Your task to perform on an android device: manage bookmarks in the chrome app Image 0: 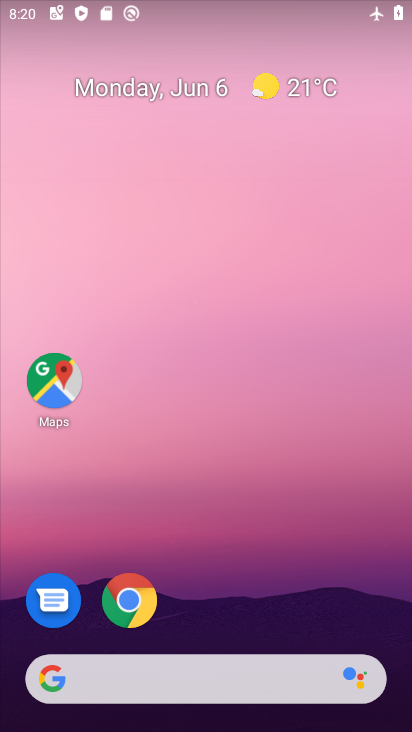
Step 0: drag from (378, 626) to (334, 133)
Your task to perform on an android device: manage bookmarks in the chrome app Image 1: 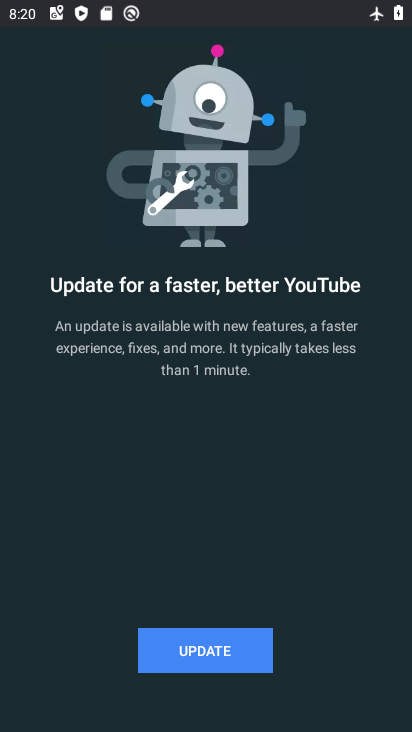
Step 1: press home button
Your task to perform on an android device: manage bookmarks in the chrome app Image 2: 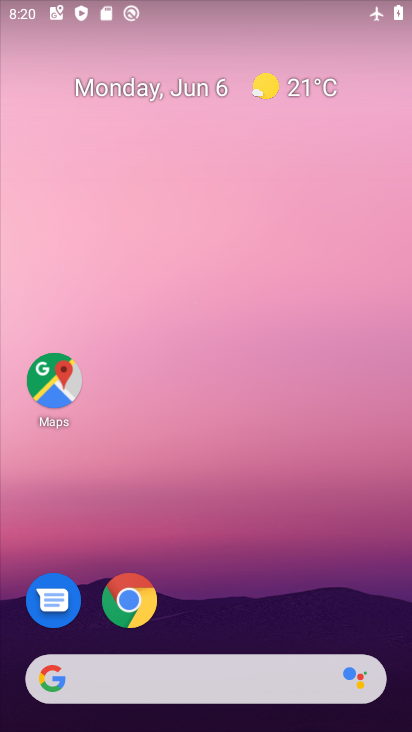
Step 2: click (127, 598)
Your task to perform on an android device: manage bookmarks in the chrome app Image 3: 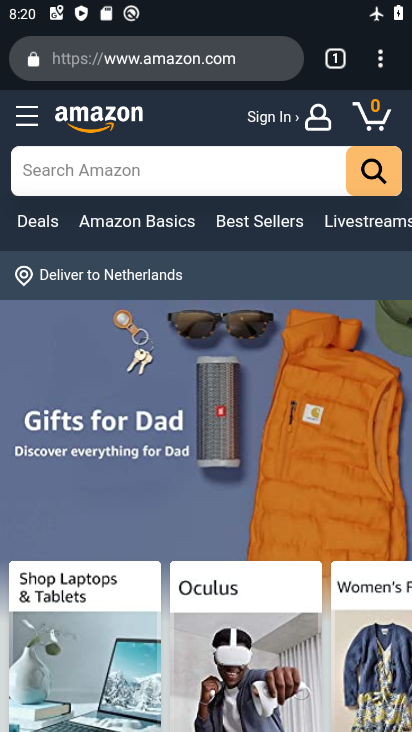
Step 3: click (378, 65)
Your task to perform on an android device: manage bookmarks in the chrome app Image 4: 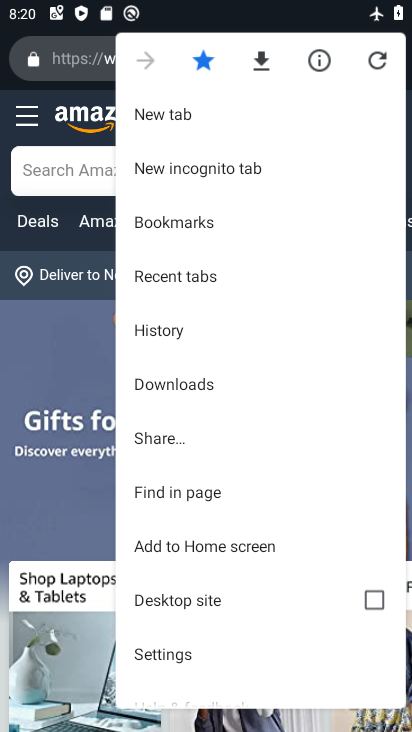
Step 4: click (177, 228)
Your task to perform on an android device: manage bookmarks in the chrome app Image 5: 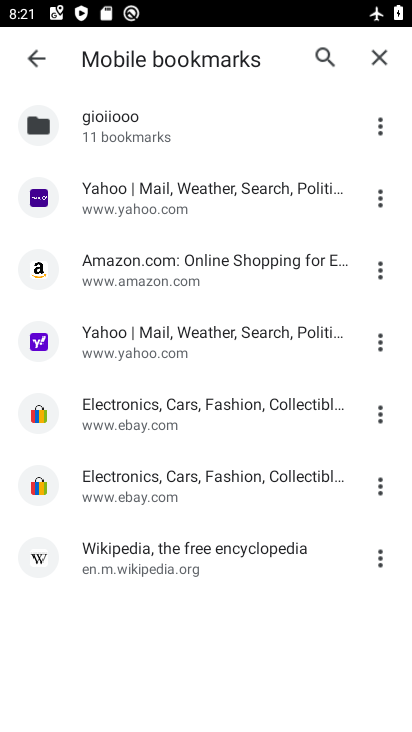
Step 5: click (118, 212)
Your task to perform on an android device: manage bookmarks in the chrome app Image 6: 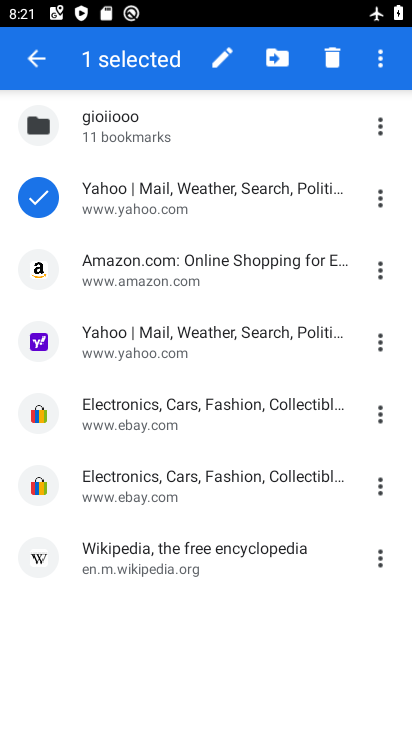
Step 6: click (277, 58)
Your task to perform on an android device: manage bookmarks in the chrome app Image 7: 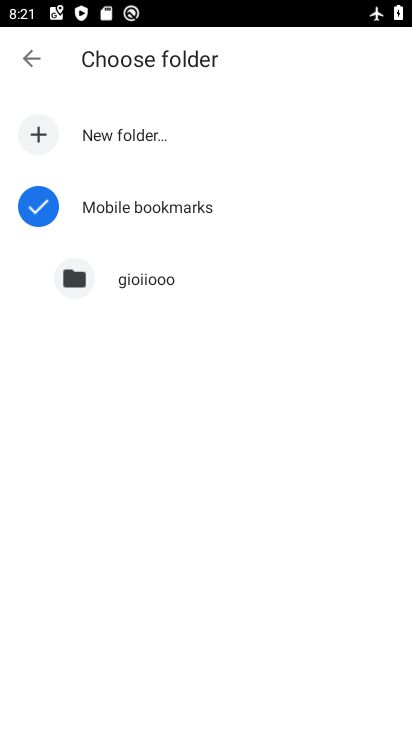
Step 7: click (160, 271)
Your task to perform on an android device: manage bookmarks in the chrome app Image 8: 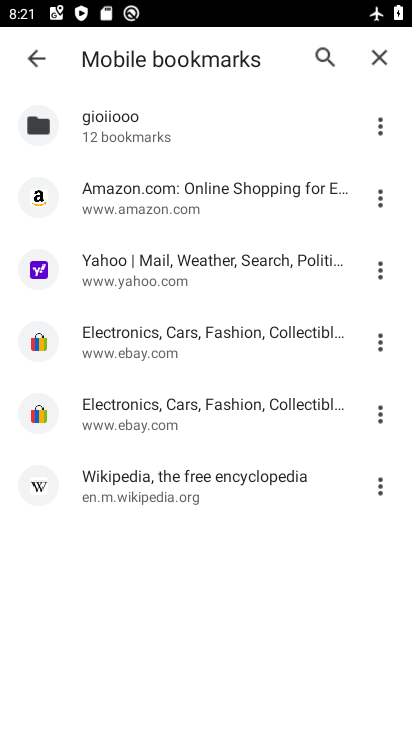
Step 8: task complete